Your task to perform on an android device: remove spam from my inbox in the gmail app Image 0: 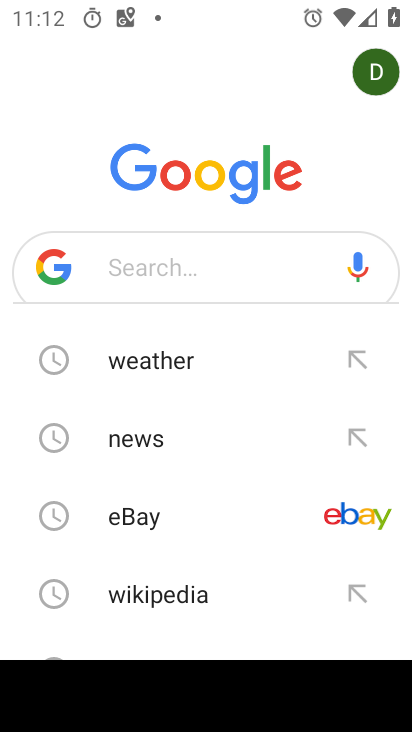
Step 0: press home button
Your task to perform on an android device: remove spam from my inbox in the gmail app Image 1: 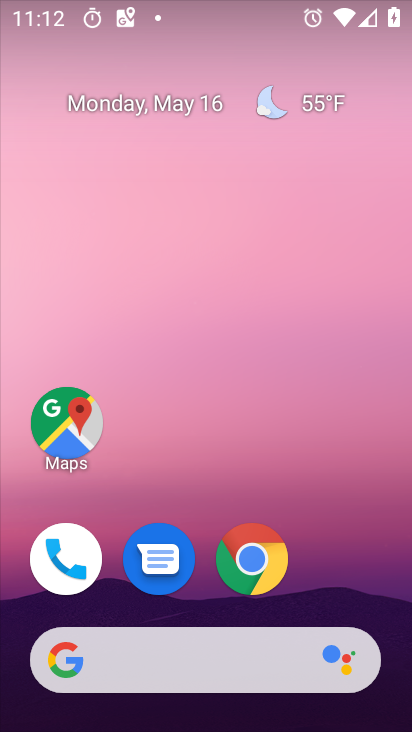
Step 1: drag from (342, 529) to (351, 63)
Your task to perform on an android device: remove spam from my inbox in the gmail app Image 2: 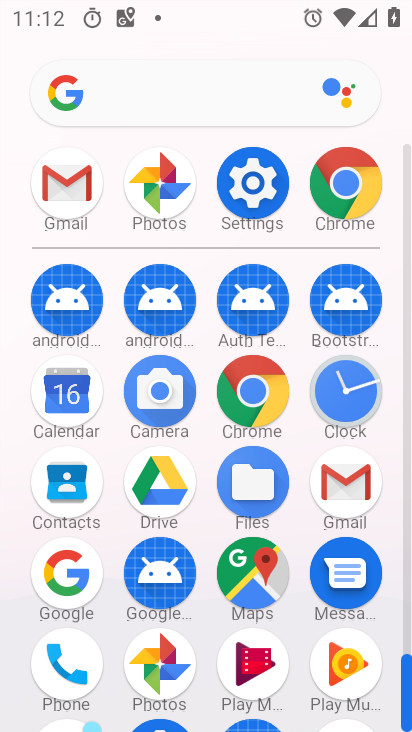
Step 2: click (70, 186)
Your task to perform on an android device: remove spam from my inbox in the gmail app Image 3: 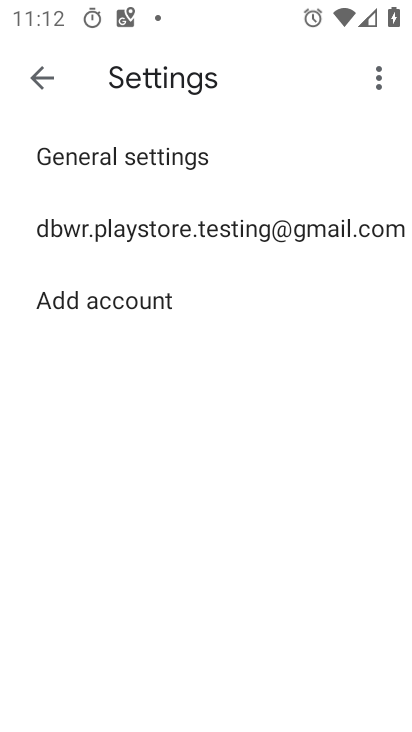
Step 3: click (51, 96)
Your task to perform on an android device: remove spam from my inbox in the gmail app Image 4: 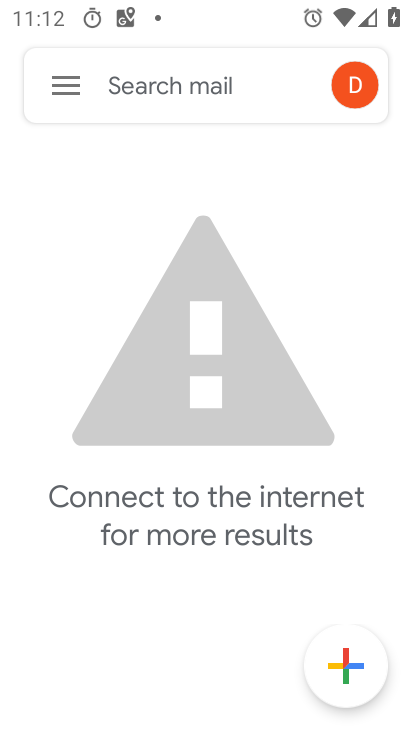
Step 4: click (52, 95)
Your task to perform on an android device: remove spam from my inbox in the gmail app Image 5: 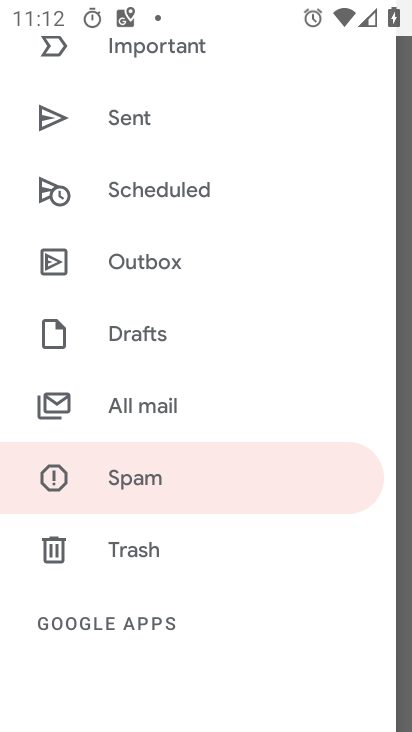
Step 5: drag from (189, 202) to (201, 581)
Your task to perform on an android device: remove spam from my inbox in the gmail app Image 6: 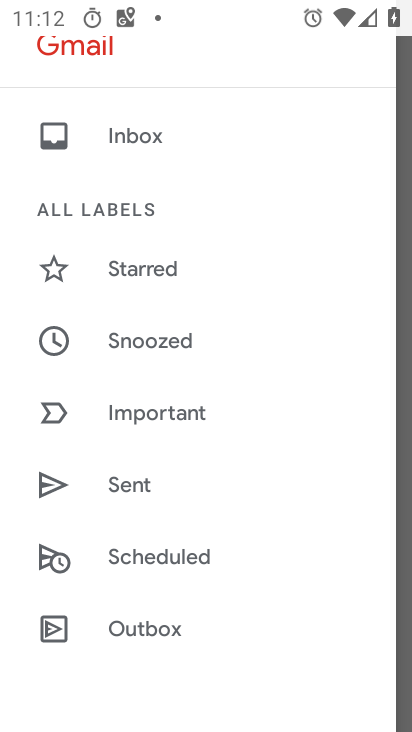
Step 6: click (133, 124)
Your task to perform on an android device: remove spam from my inbox in the gmail app Image 7: 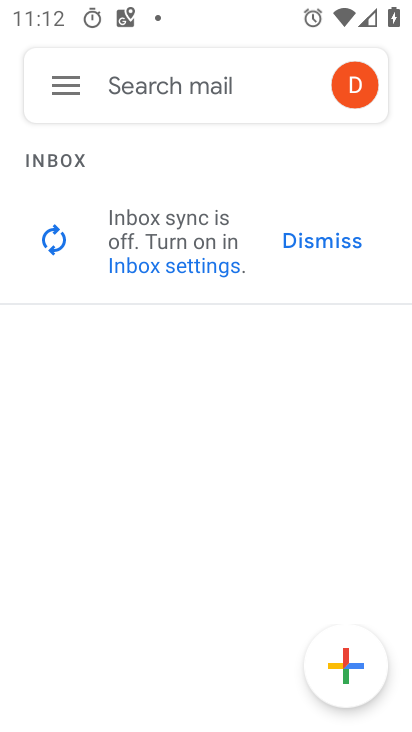
Step 7: task complete